Your task to perform on an android device: see tabs open on other devices in the chrome app Image 0: 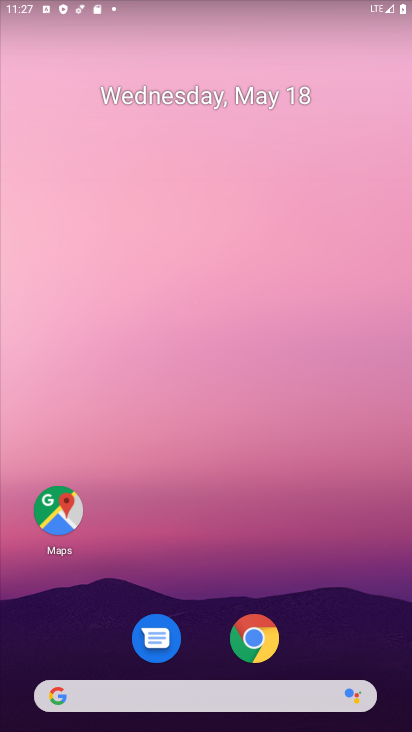
Step 0: drag from (362, 632) to (291, 69)
Your task to perform on an android device: see tabs open on other devices in the chrome app Image 1: 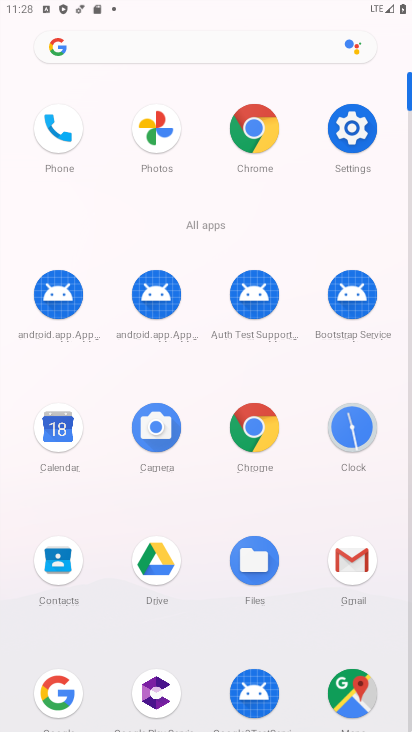
Step 1: click (266, 448)
Your task to perform on an android device: see tabs open on other devices in the chrome app Image 2: 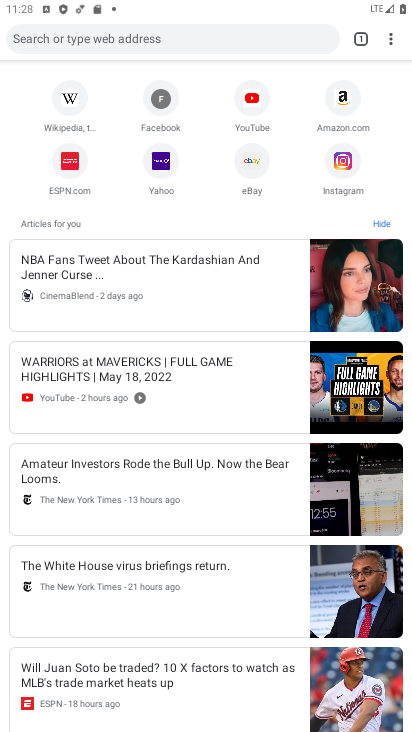
Step 2: task complete